Your task to perform on an android device: Open settings Image 0: 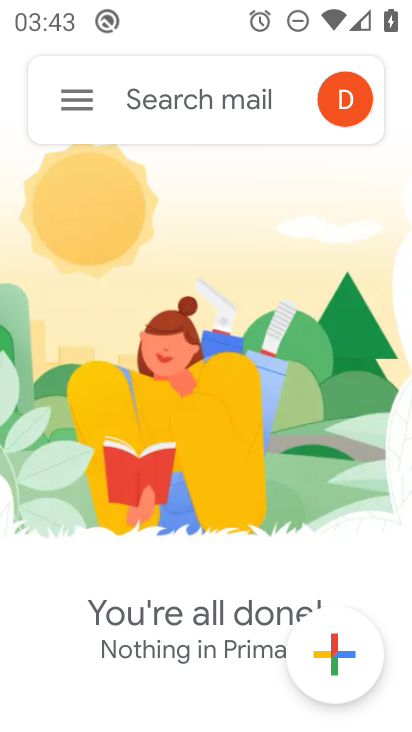
Step 0: press home button
Your task to perform on an android device: Open settings Image 1: 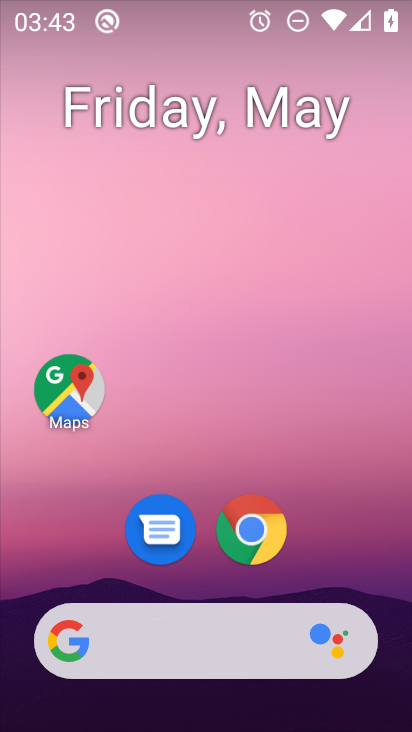
Step 1: drag from (392, 683) to (395, 288)
Your task to perform on an android device: Open settings Image 2: 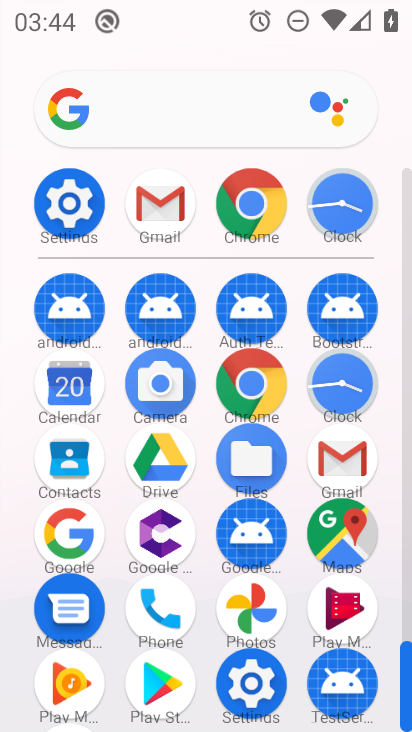
Step 2: click (73, 214)
Your task to perform on an android device: Open settings Image 3: 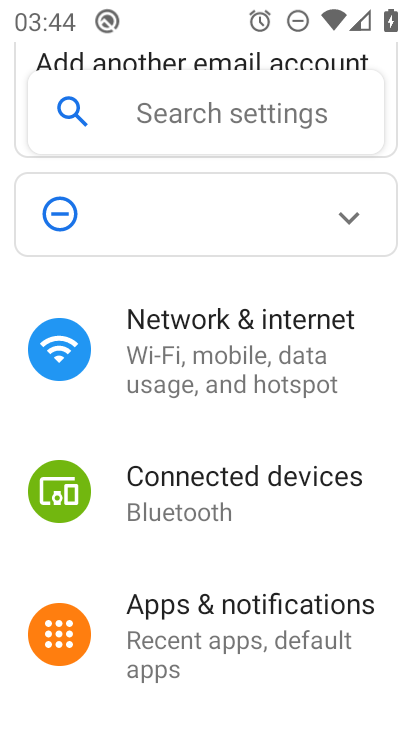
Step 3: task complete